Your task to perform on an android device: set default search engine in the chrome app Image 0: 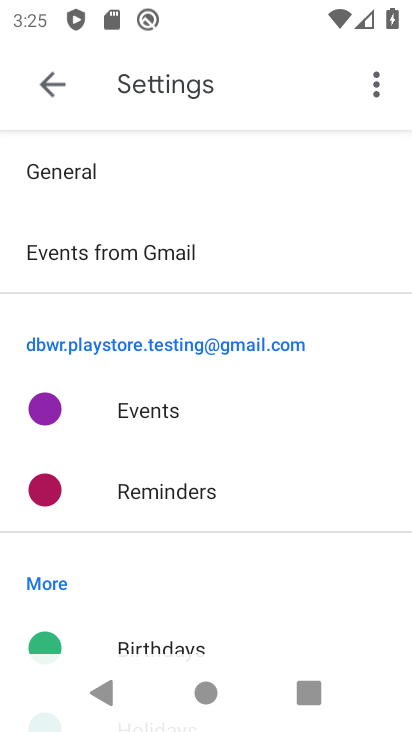
Step 0: press home button
Your task to perform on an android device: set default search engine in the chrome app Image 1: 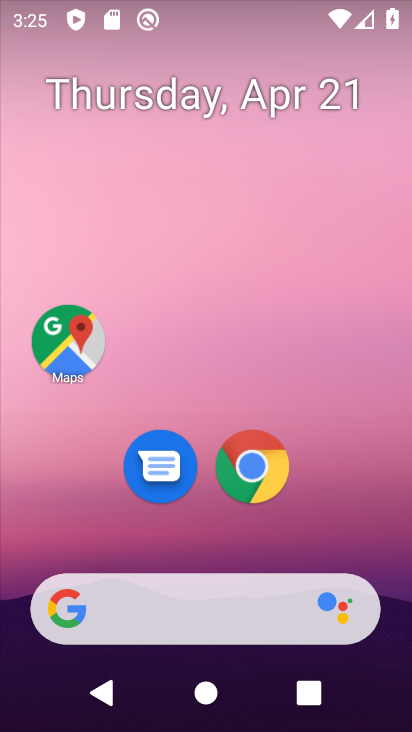
Step 1: click (267, 468)
Your task to perform on an android device: set default search engine in the chrome app Image 2: 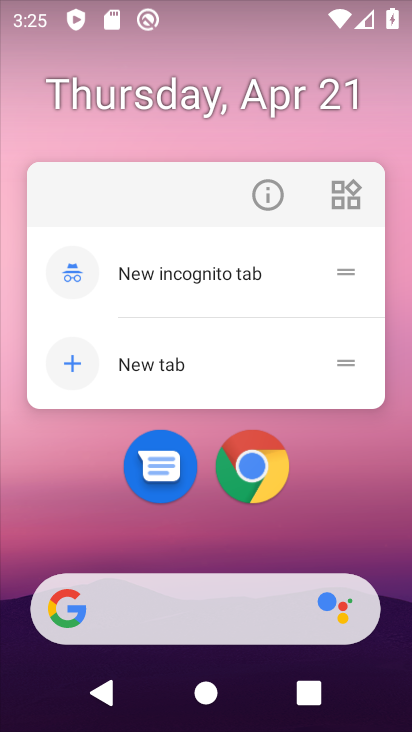
Step 2: click (244, 484)
Your task to perform on an android device: set default search engine in the chrome app Image 3: 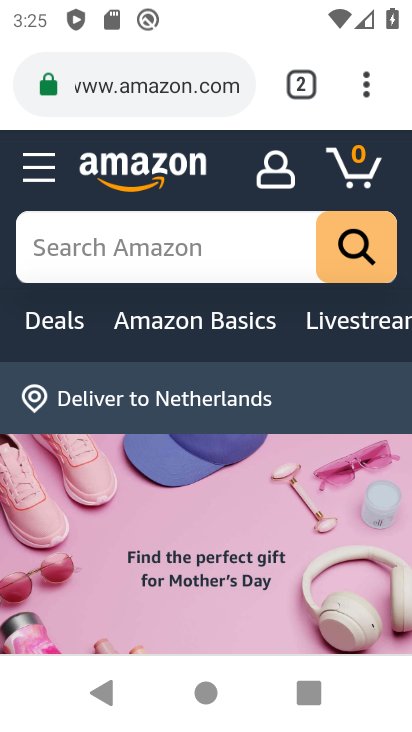
Step 3: drag from (365, 91) to (98, 516)
Your task to perform on an android device: set default search engine in the chrome app Image 4: 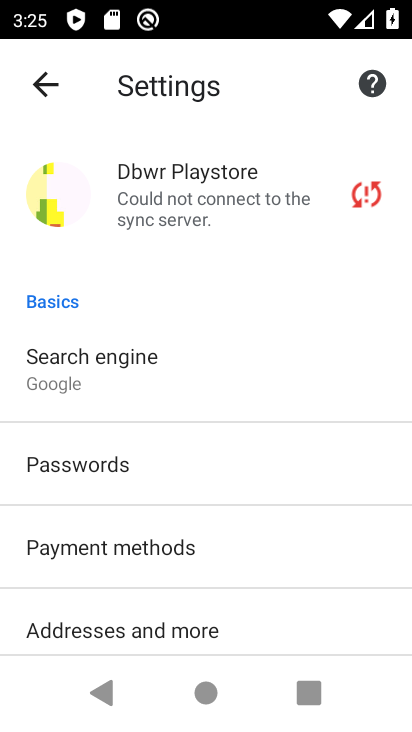
Step 4: click (197, 381)
Your task to perform on an android device: set default search engine in the chrome app Image 5: 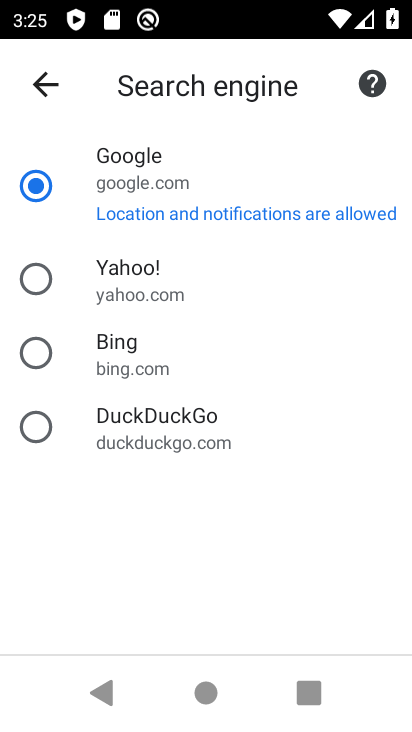
Step 5: click (127, 346)
Your task to perform on an android device: set default search engine in the chrome app Image 6: 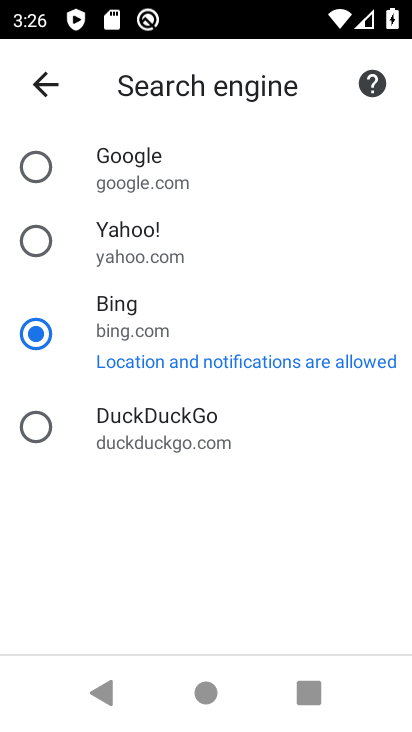
Step 6: task complete